Your task to perform on an android device: check storage Image 0: 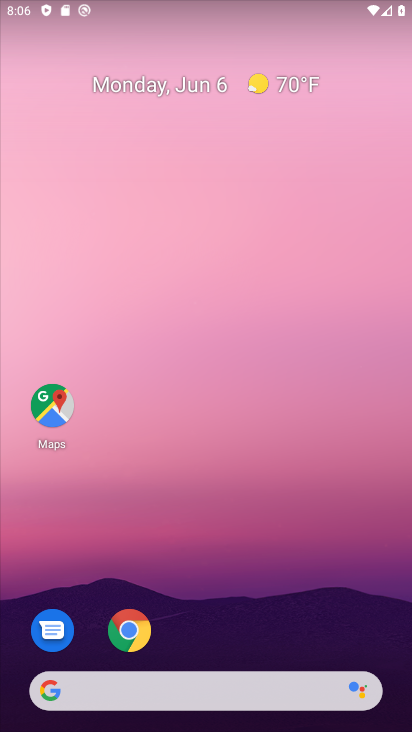
Step 0: drag from (223, 640) to (228, 133)
Your task to perform on an android device: check storage Image 1: 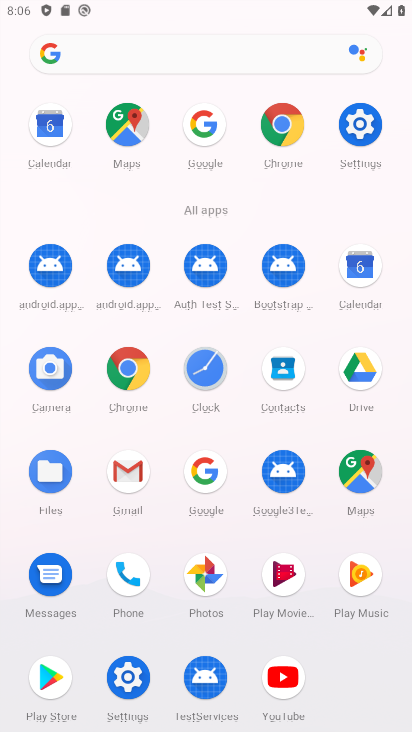
Step 1: click (379, 129)
Your task to perform on an android device: check storage Image 2: 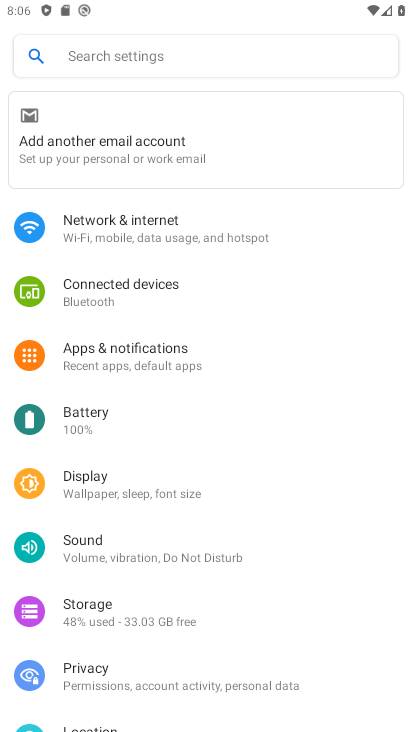
Step 2: drag from (235, 646) to (230, 466)
Your task to perform on an android device: check storage Image 3: 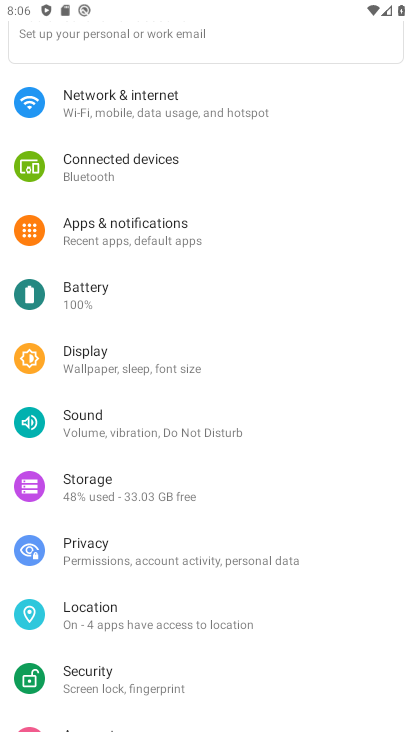
Step 3: click (181, 486)
Your task to perform on an android device: check storage Image 4: 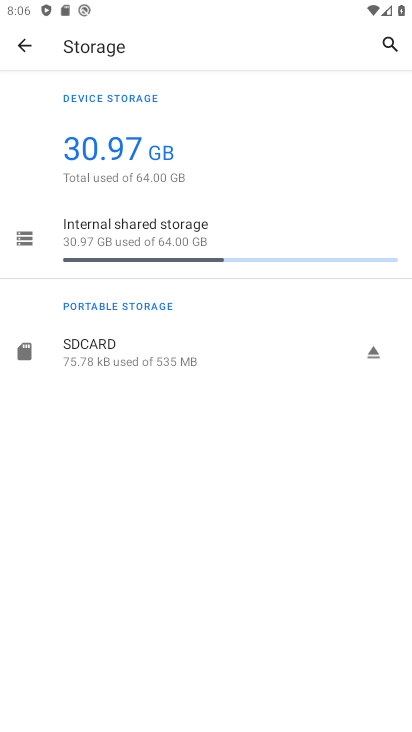
Step 4: task complete